Your task to perform on an android device: search for starred emails in the gmail app Image 0: 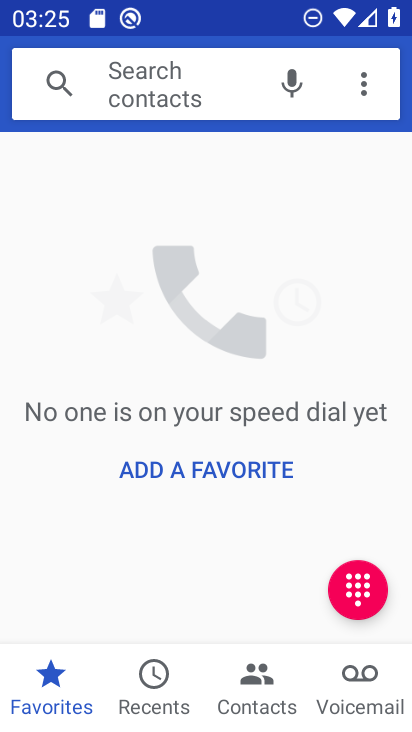
Step 0: press back button
Your task to perform on an android device: search for starred emails in the gmail app Image 1: 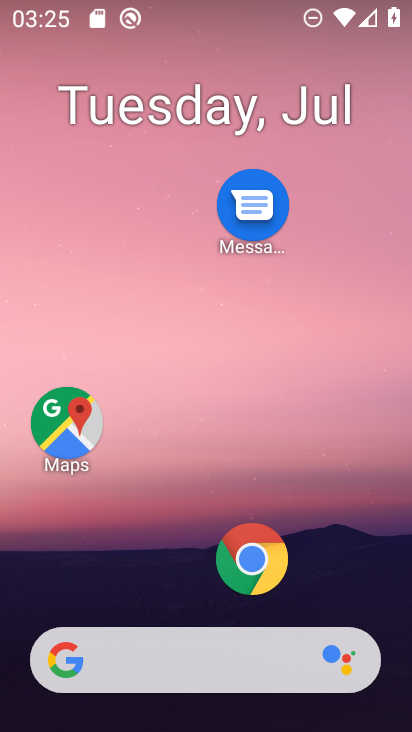
Step 1: drag from (183, 612) to (283, 5)
Your task to perform on an android device: search for starred emails in the gmail app Image 2: 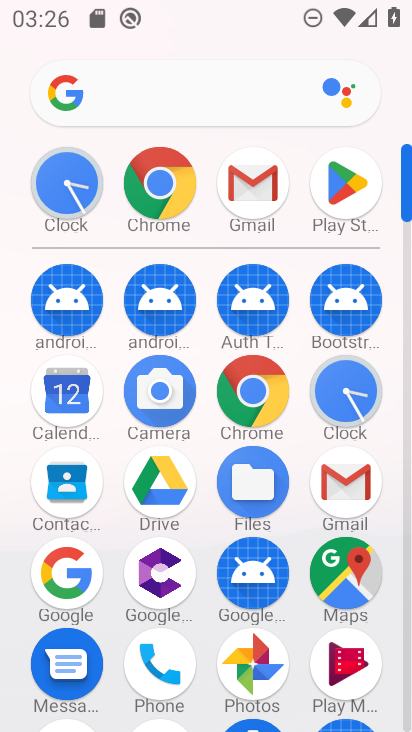
Step 2: click (242, 182)
Your task to perform on an android device: search for starred emails in the gmail app Image 3: 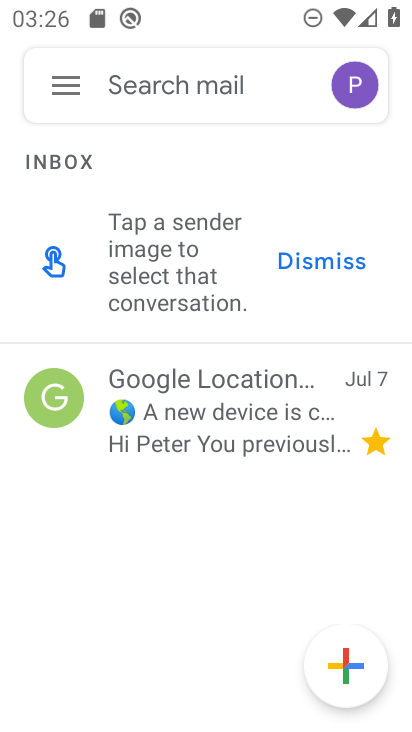
Step 3: click (72, 64)
Your task to perform on an android device: search for starred emails in the gmail app Image 4: 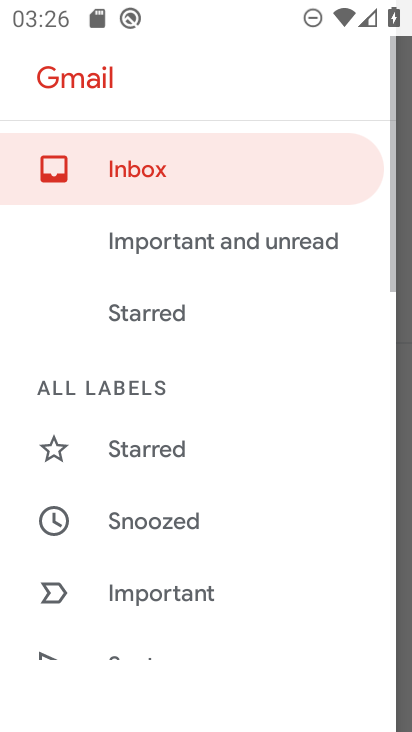
Step 4: click (147, 438)
Your task to perform on an android device: search for starred emails in the gmail app Image 5: 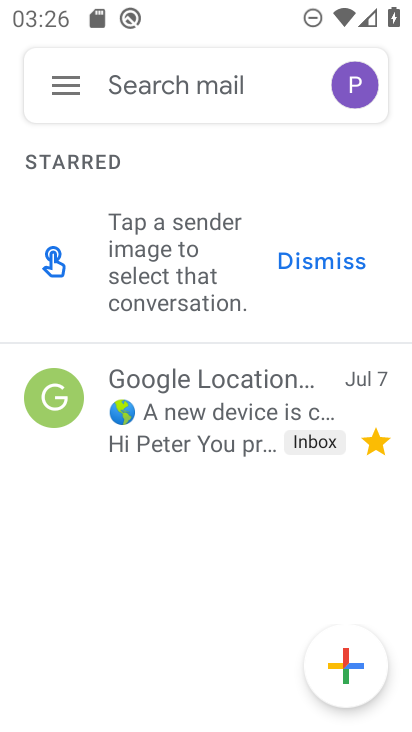
Step 5: task complete